Your task to perform on an android device: Toggle the flashlight Image 0: 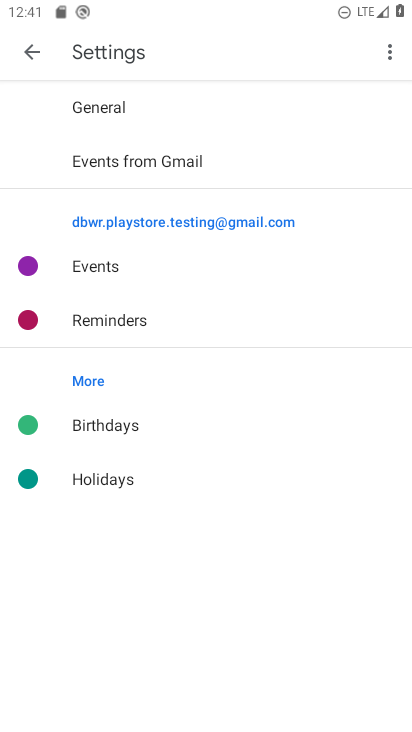
Step 0: press home button
Your task to perform on an android device: Toggle the flashlight Image 1: 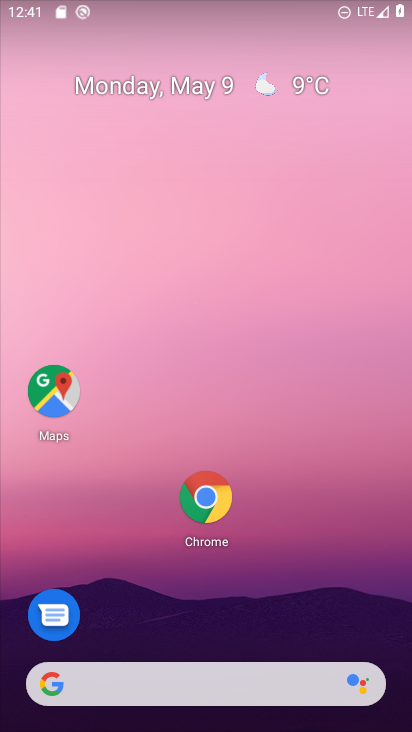
Step 1: drag from (317, 582) to (306, 100)
Your task to perform on an android device: Toggle the flashlight Image 2: 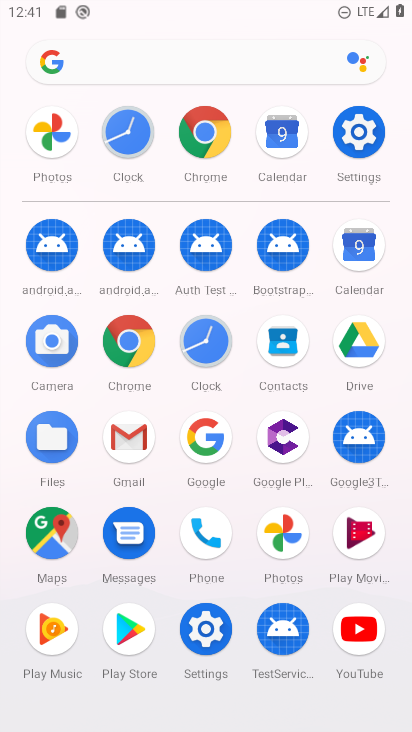
Step 2: click (346, 121)
Your task to perform on an android device: Toggle the flashlight Image 3: 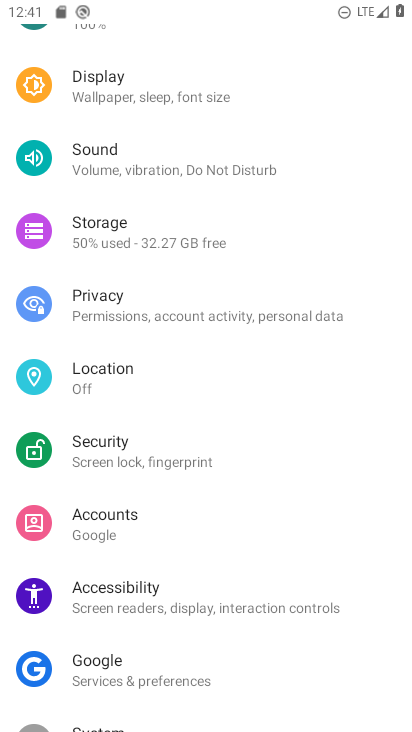
Step 3: click (205, 103)
Your task to perform on an android device: Toggle the flashlight Image 4: 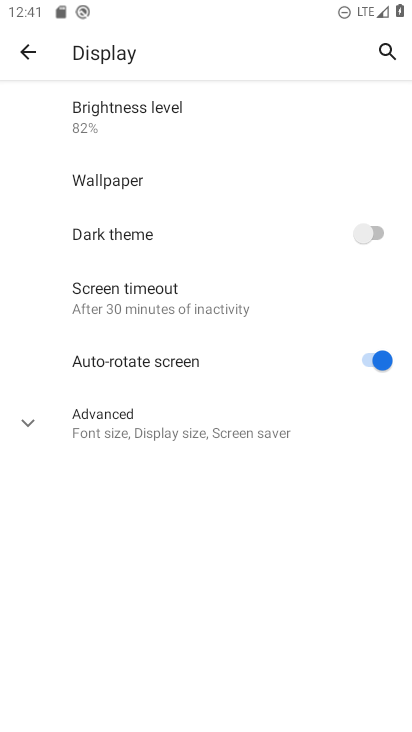
Step 4: task complete